Your task to perform on an android device: create a new album in the google photos Image 0: 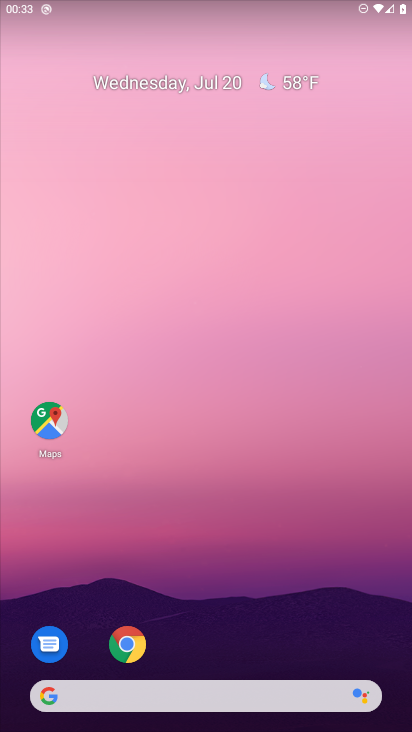
Step 0: drag from (44, 654) to (374, 19)
Your task to perform on an android device: create a new album in the google photos Image 1: 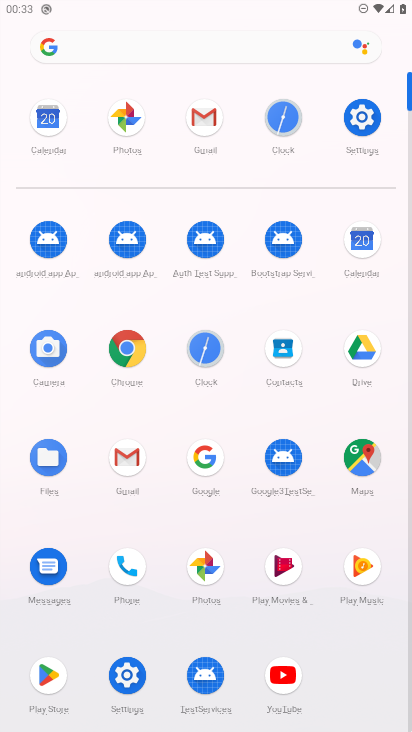
Step 1: click (202, 575)
Your task to perform on an android device: create a new album in the google photos Image 2: 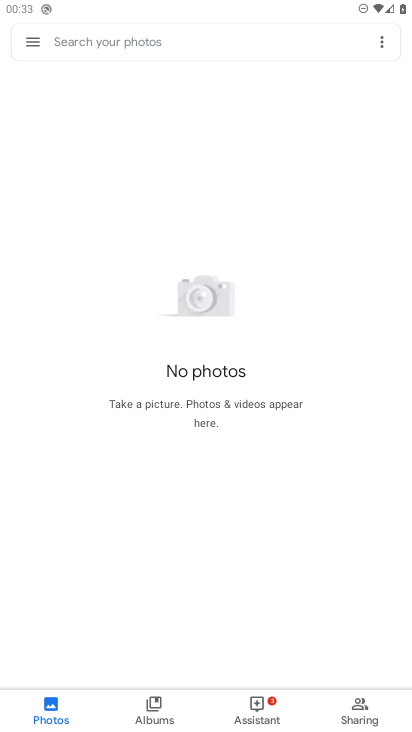
Step 2: task complete